Your task to perform on an android device: check out phone information Image 0: 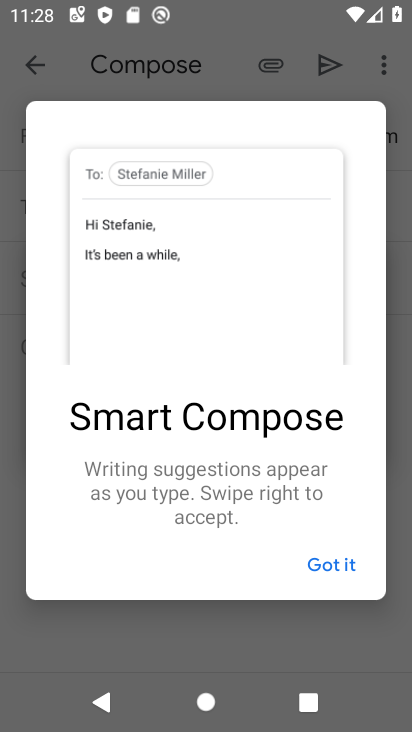
Step 0: press home button
Your task to perform on an android device: check out phone information Image 1: 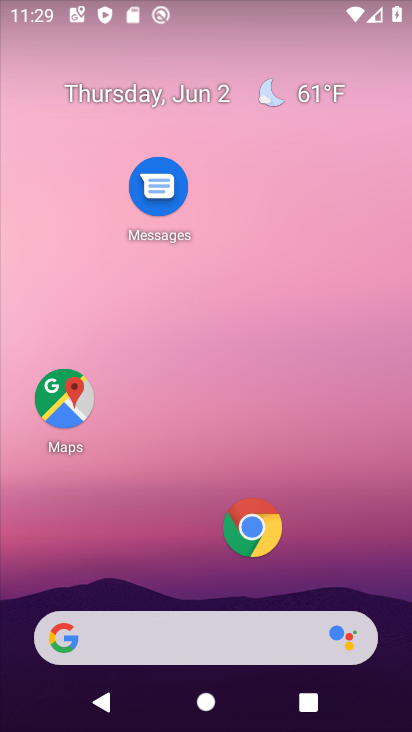
Step 1: drag from (215, 574) to (227, 211)
Your task to perform on an android device: check out phone information Image 2: 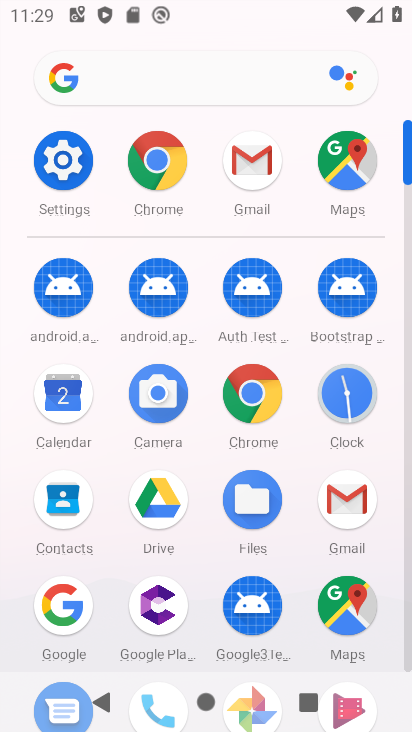
Step 2: click (59, 151)
Your task to perform on an android device: check out phone information Image 3: 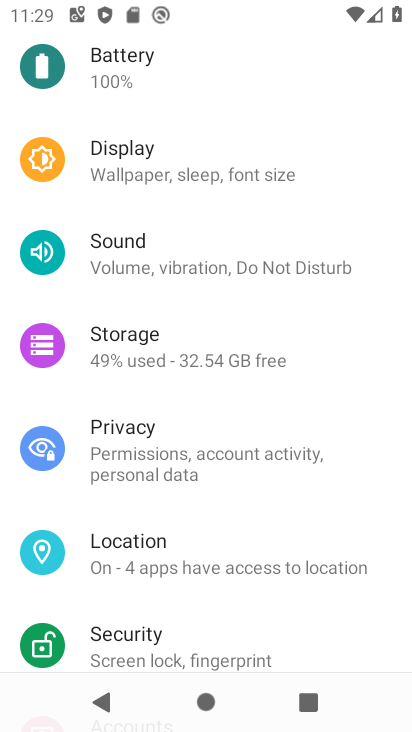
Step 3: drag from (202, 631) to (262, 42)
Your task to perform on an android device: check out phone information Image 4: 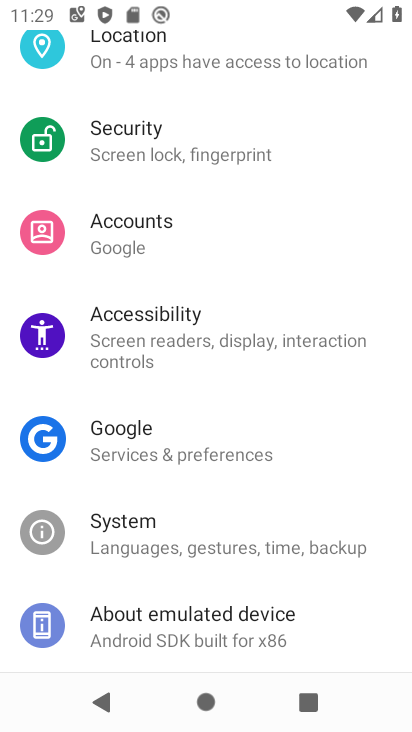
Step 4: click (302, 628)
Your task to perform on an android device: check out phone information Image 5: 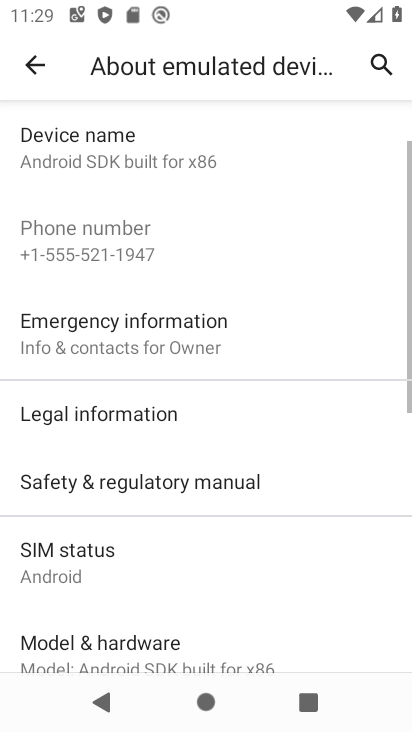
Step 5: task complete